Your task to perform on an android device: Open calendar and show me the third week of next month Image 0: 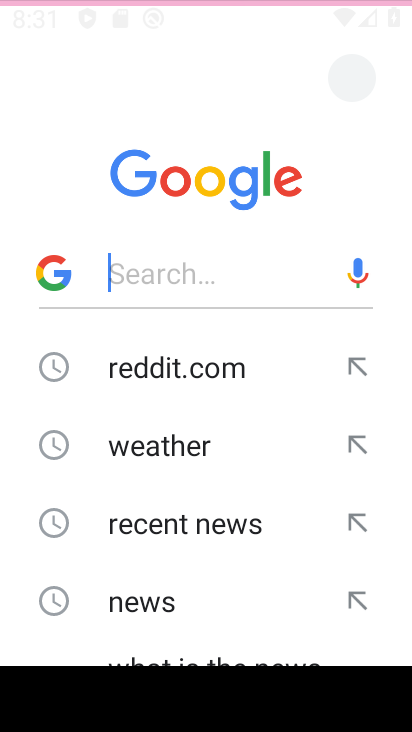
Step 0: click (265, 6)
Your task to perform on an android device: Open calendar and show me the third week of next month Image 1: 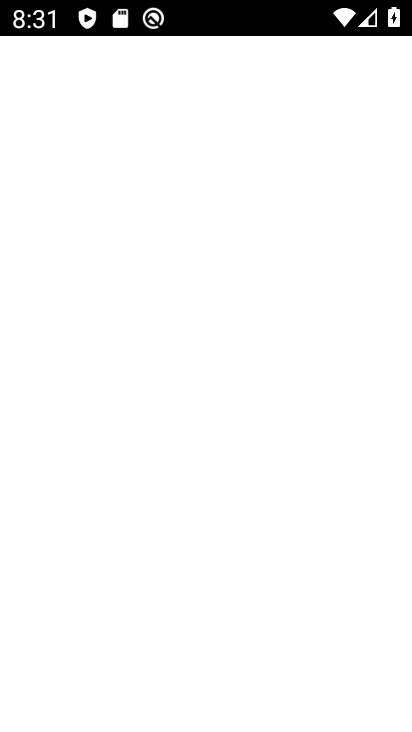
Step 1: drag from (328, 540) to (293, 182)
Your task to perform on an android device: Open calendar and show me the third week of next month Image 2: 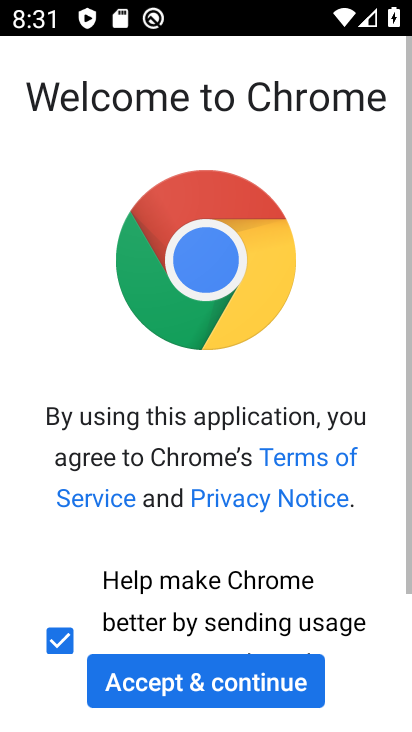
Step 2: press home button
Your task to perform on an android device: Open calendar and show me the third week of next month Image 3: 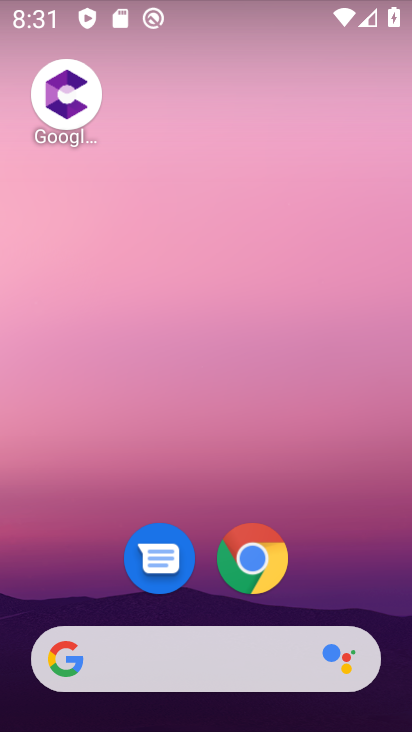
Step 3: drag from (342, 563) to (282, 137)
Your task to perform on an android device: Open calendar and show me the third week of next month Image 4: 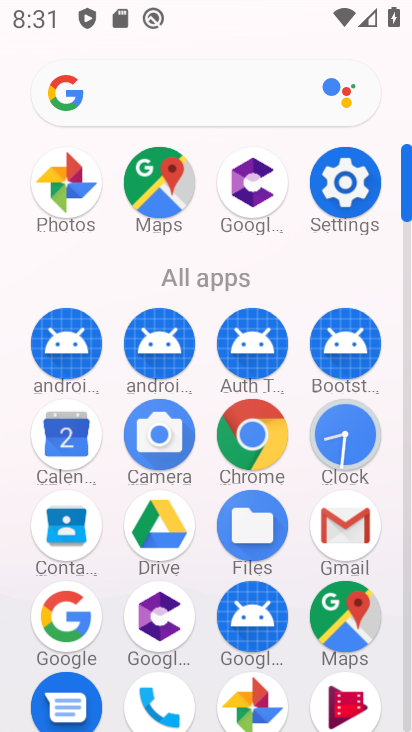
Step 4: click (64, 524)
Your task to perform on an android device: Open calendar and show me the third week of next month Image 5: 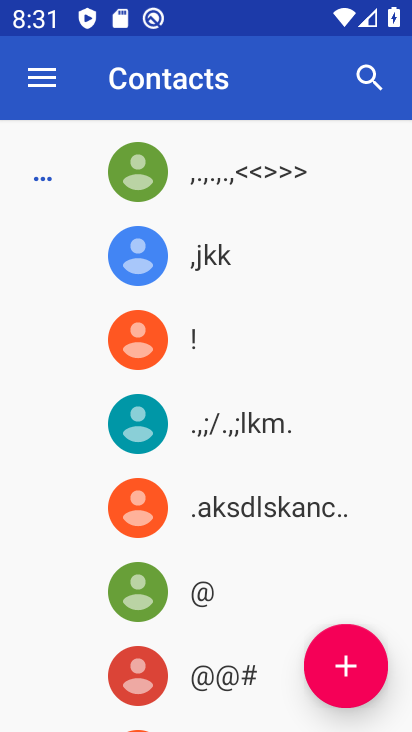
Step 5: press home button
Your task to perform on an android device: Open calendar and show me the third week of next month Image 6: 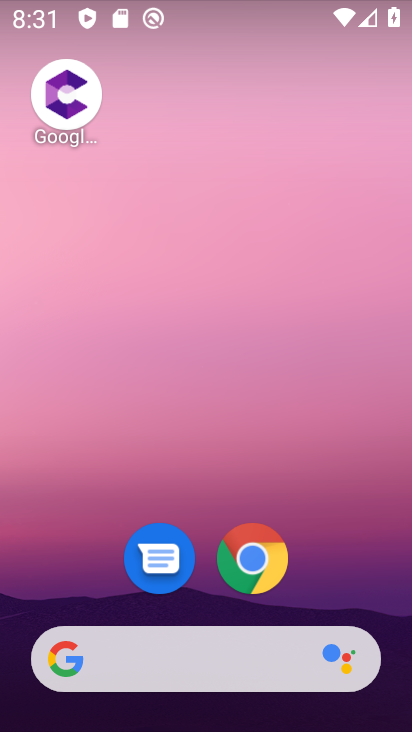
Step 6: drag from (326, 524) to (291, 27)
Your task to perform on an android device: Open calendar and show me the third week of next month Image 7: 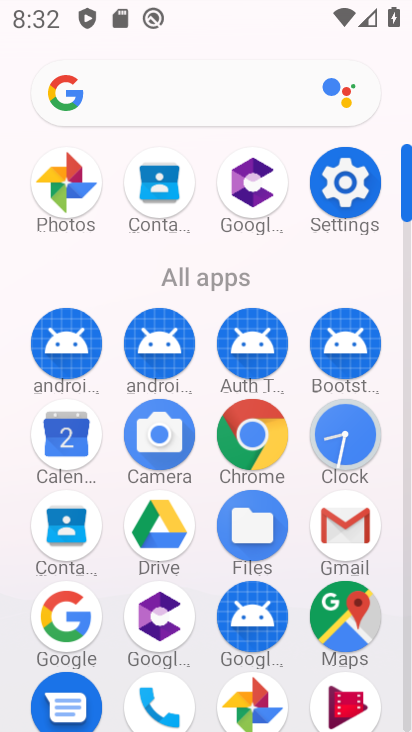
Step 7: click (74, 446)
Your task to perform on an android device: Open calendar and show me the third week of next month Image 8: 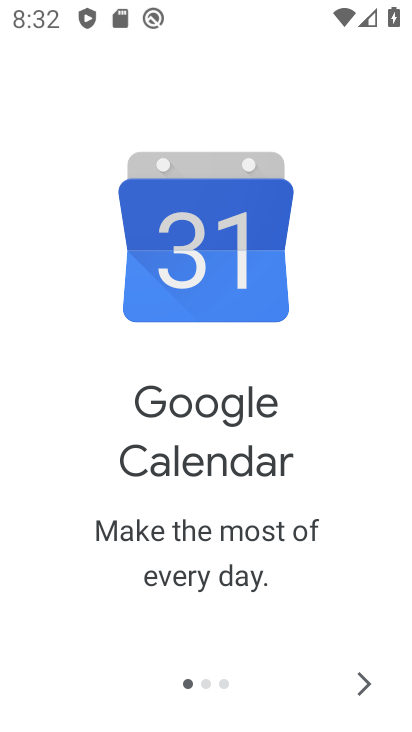
Step 8: click (365, 673)
Your task to perform on an android device: Open calendar and show me the third week of next month Image 9: 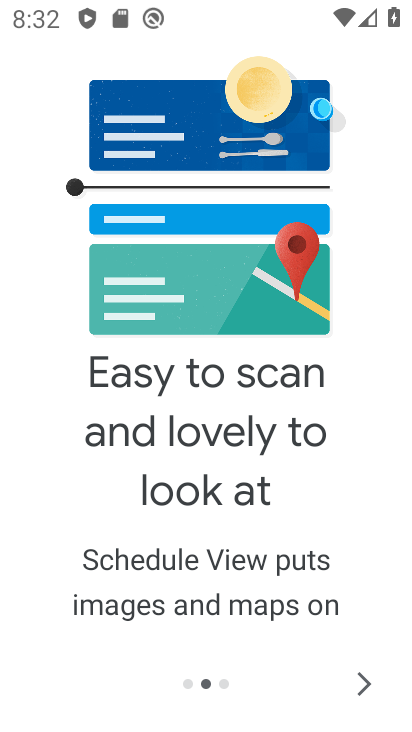
Step 9: click (365, 673)
Your task to perform on an android device: Open calendar and show me the third week of next month Image 10: 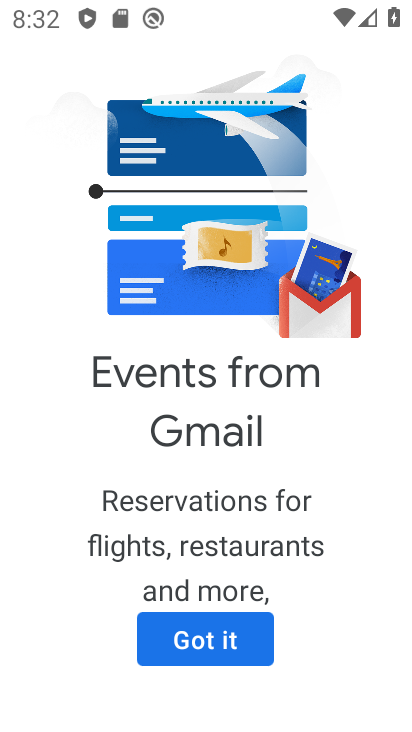
Step 10: click (153, 641)
Your task to perform on an android device: Open calendar and show me the third week of next month Image 11: 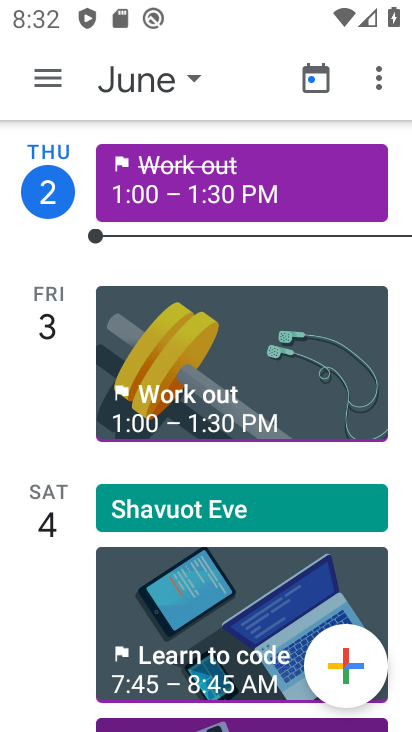
Step 11: click (168, 82)
Your task to perform on an android device: Open calendar and show me the third week of next month Image 12: 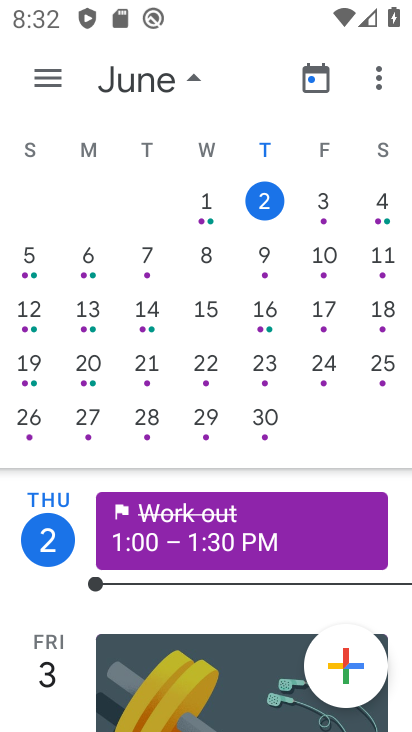
Step 12: drag from (383, 303) to (38, 265)
Your task to perform on an android device: Open calendar and show me the third week of next month Image 13: 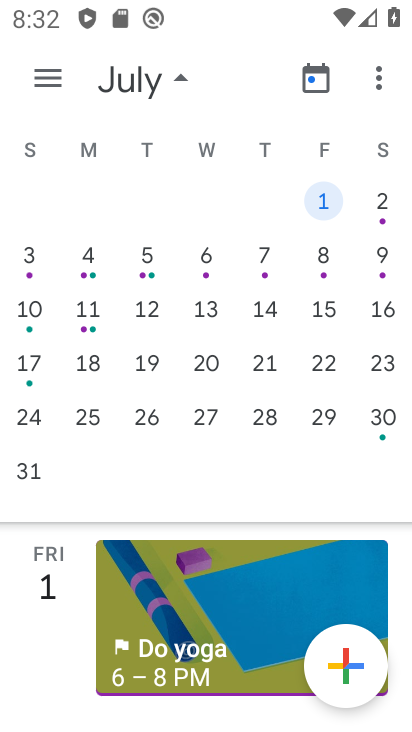
Step 13: click (29, 365)
Your task to perform on an android device: Open calendar and show me the third week of next month Image 14: 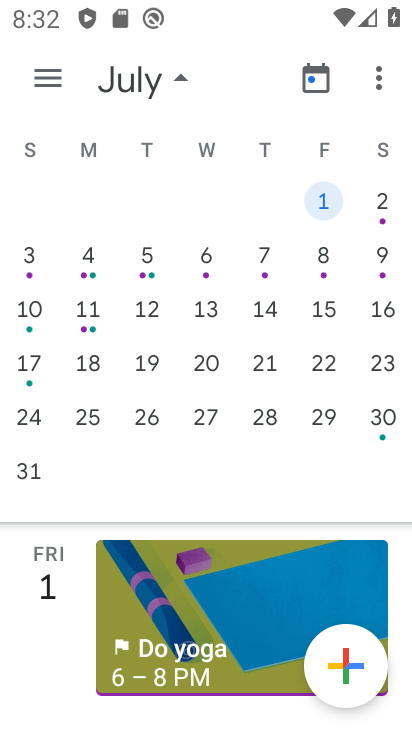
Step 14: click (30, 358)
Your task to perform on an android device: Open calendar and show me the third week of next month Image 15: 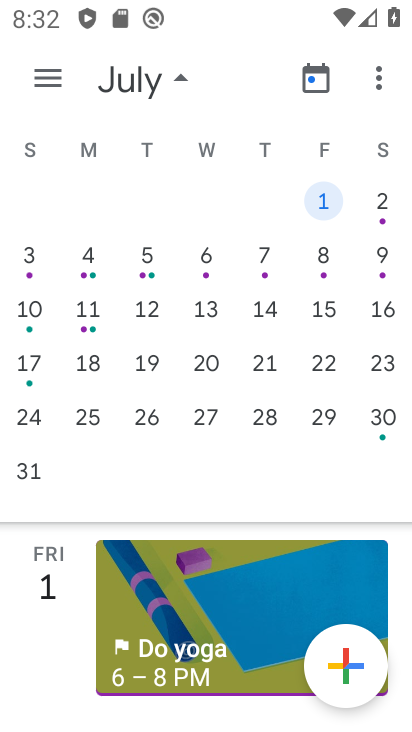
Step 15: click (9, 385)
Your task to perform on an android device: Open calendar and show me the third week of next month Image 16: 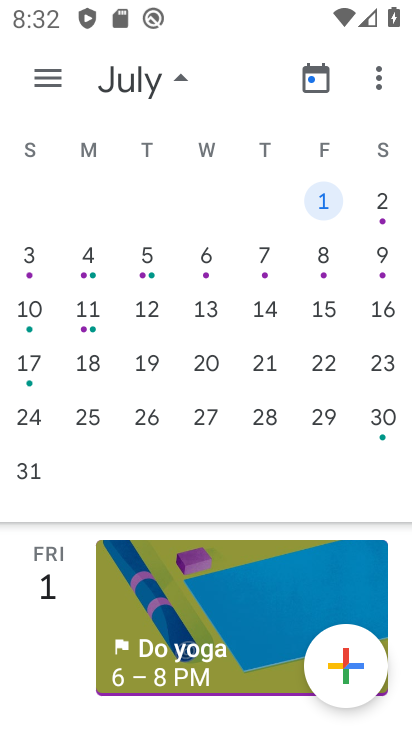
Step 16: click (51, 360)
Your task to perform on an android device: Open calendar and show me the third week of next month Image 17: 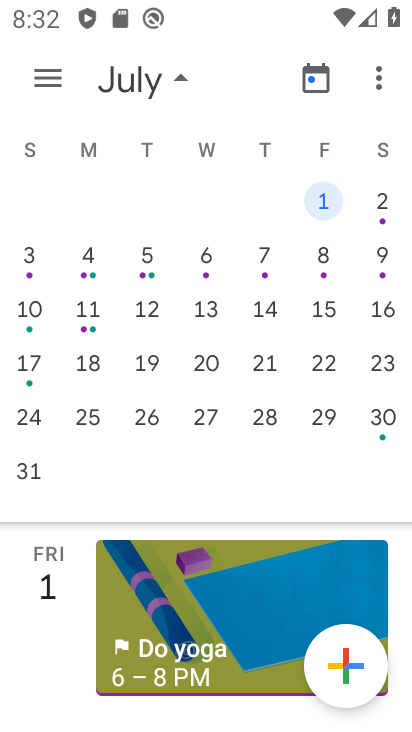
Step 17: click (32, 359)
Your task to perform on an android device: Open calendar and show me the third week of next month Image 18: 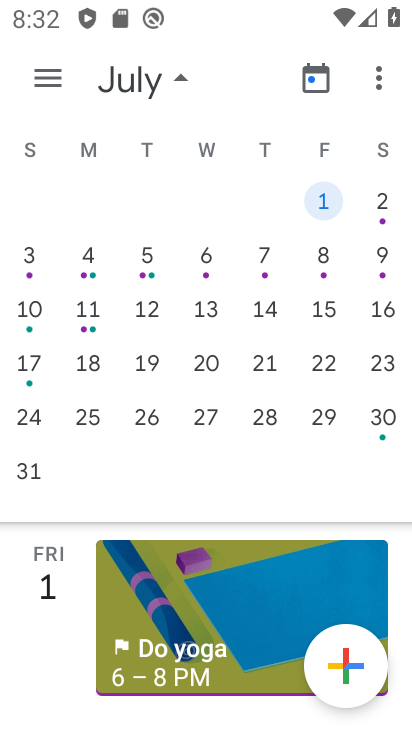
Step 18: click (32, 358)
Your task to perform on an android device: Open calendar and show me the third week of next month Image 19: 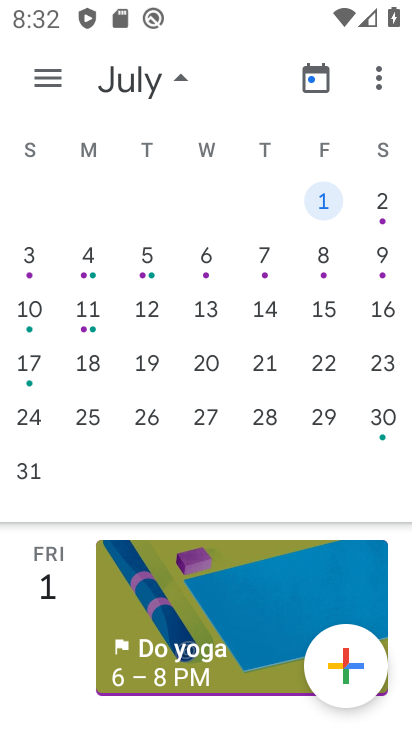
Step 19: click (32, 358)
Your task to perform on an android device: Open calendar and show me the third week of next month Image 20: 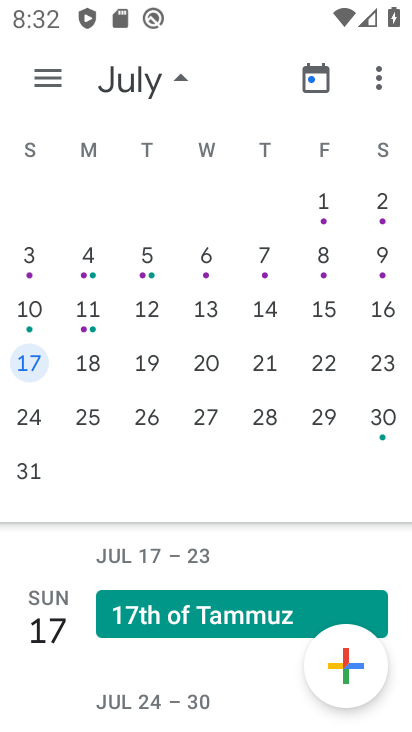
Step 20: click (40, 344)
Your task to perform on an android device: Open calendar and show me the third week of next month Image 21: 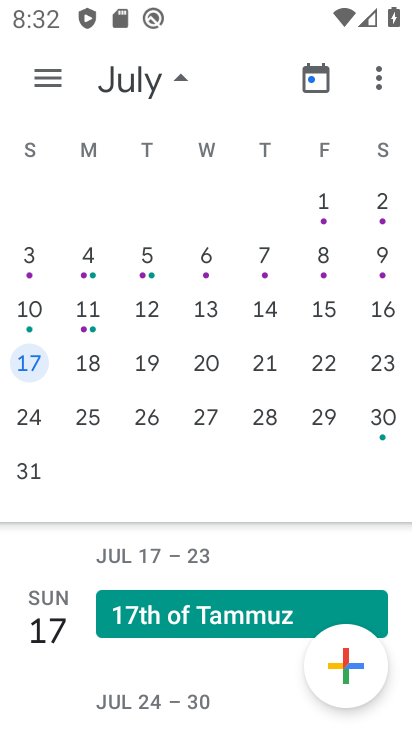
Step 21: click (40, 344)
Your task to perform on an android device: Open calendar and show me the third week of next month Image 22: 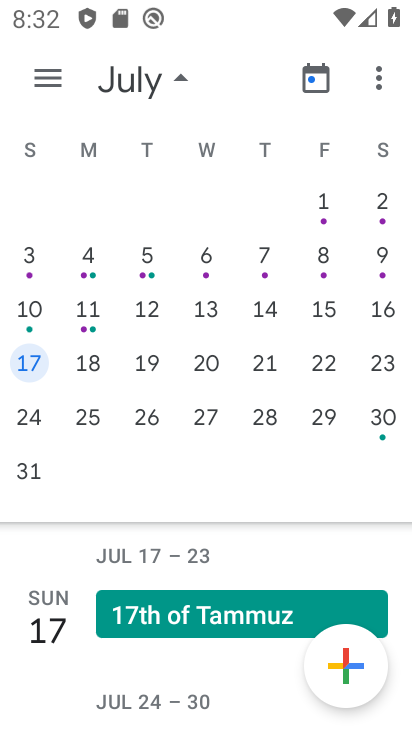
Step 22: click (33, 363)
Your task to perform on an android device: Open calendar and show me the third week of next month Image 23: 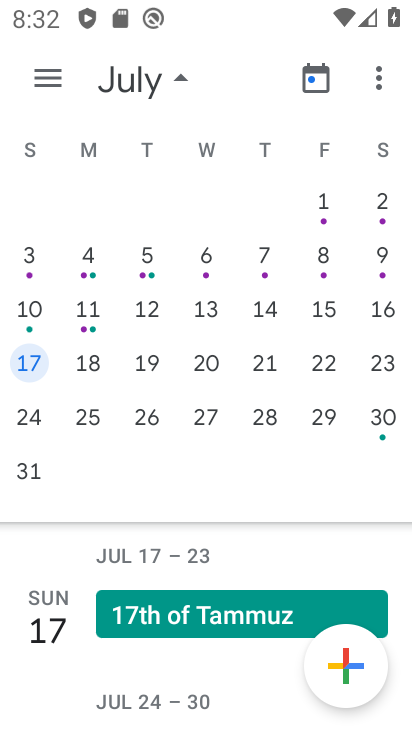
Step 23: click (58, 82)
Your task to perform on an android device: Open calendar and show me the third week of next month Image 24: 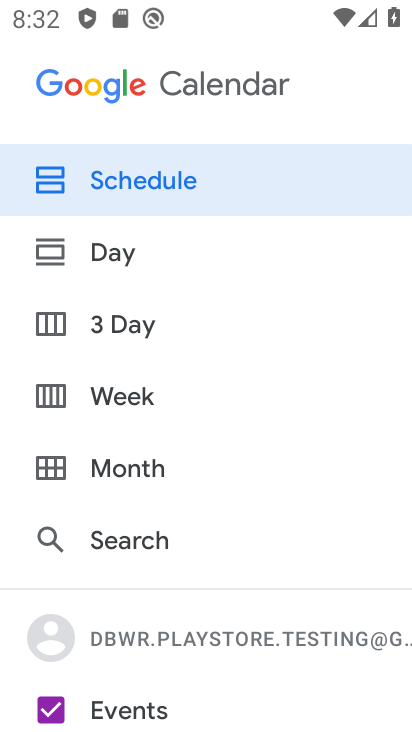
Step 24: click (119, 407)
Your task to perform on an android device: Open calendar and show me the third week of next month Image 25: 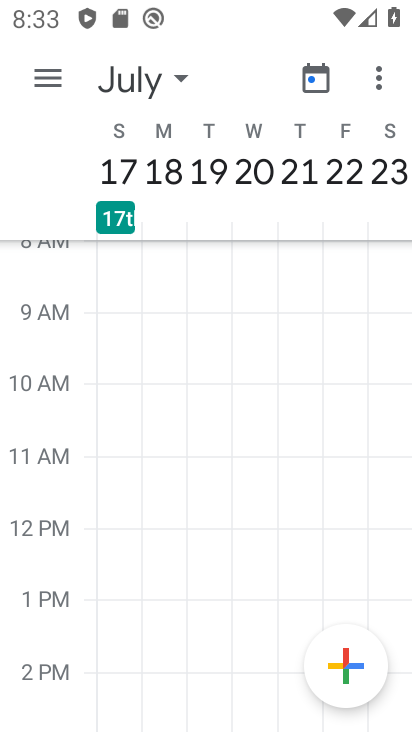
Step 25: task complete